Your task to perform on an android device: When is my next meeting? Image 0: 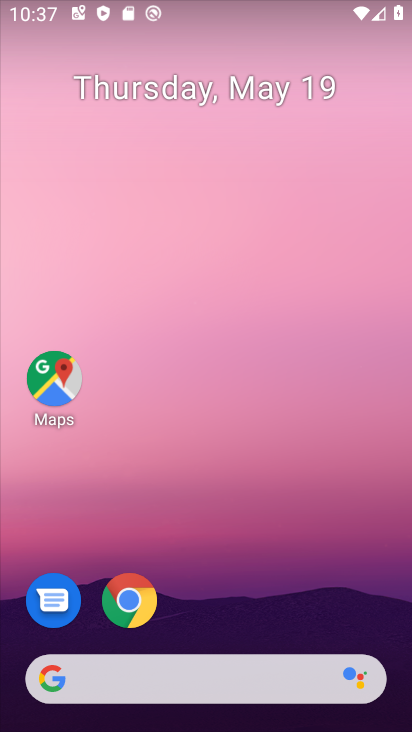
Step 0: press home button
Your task to perform on an android device: When is my next meeting? Image 1: 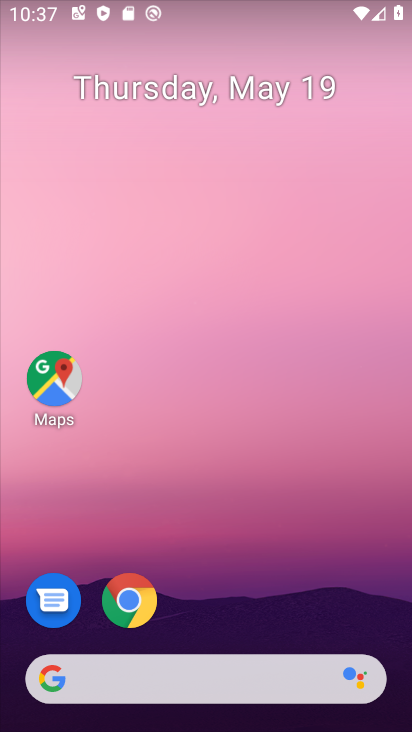
Step 1: drag from (245, 607) to (279, 186)
Your task to perform on an android device: When is my next meeting? Image 2: 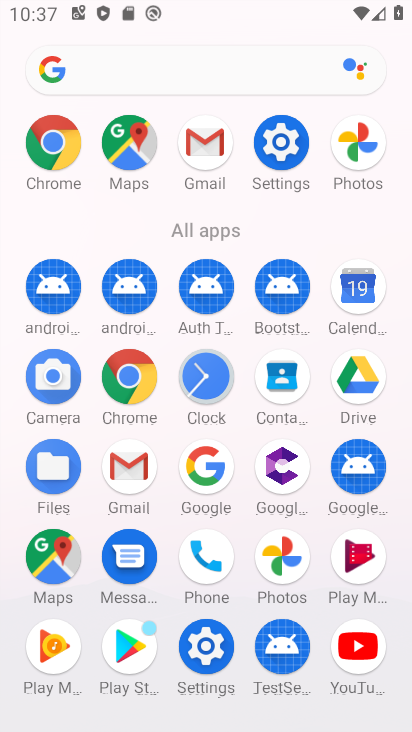
Step 2: click (368, 309)
Your task to perform on an android device: When is my next meeting? Image 3: 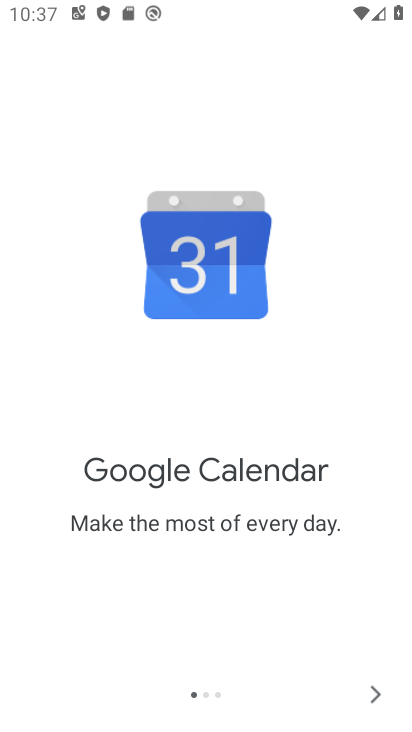
Step 3: click (383, 699)
Your task to perform on an android device: When is my next meeting? Image 4: 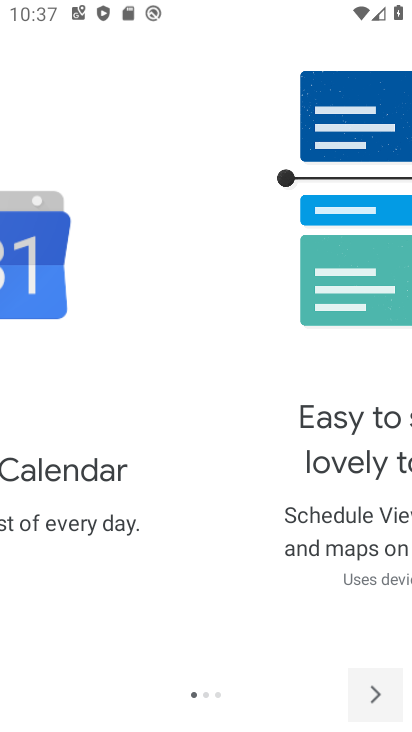
Step 4: click (370, 696)
Your task to perform on an android device: When is my next meeting? Image 5: 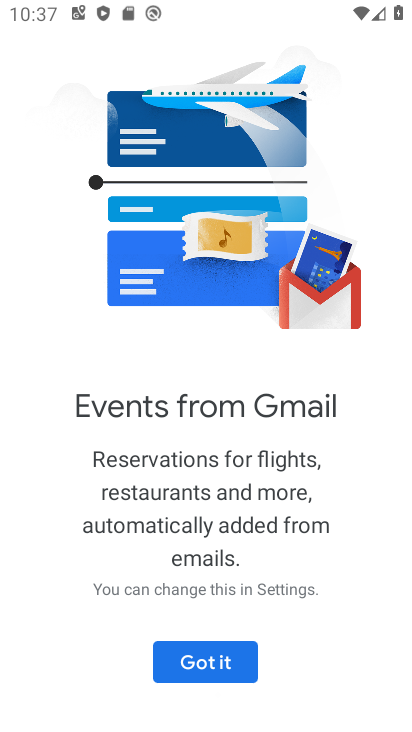
Step 5: click (207, 669)
Your task to perform on an android device: When is my next meeting? Image 6: 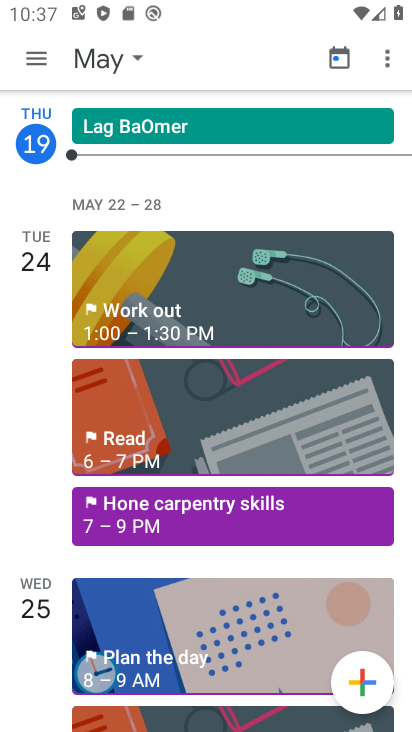
Step 6: click (135, 51)
Your task to perform on an android device: When is my next meeting? Image 7: 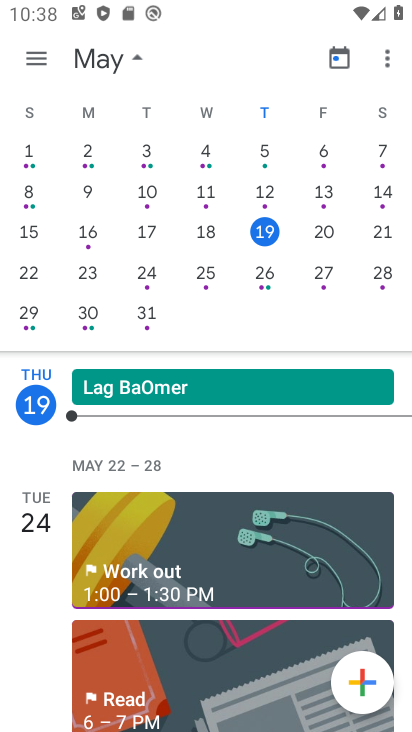
Step 7: click (135, 46)
Your task to perform on an android device: When is my next meeting? Image 8: 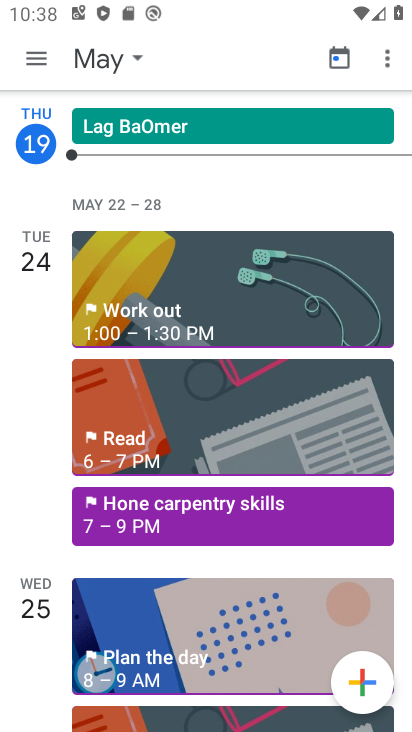
Step 8: task complete